Your task to perform on an android device: Do I have any events today? Image 0: 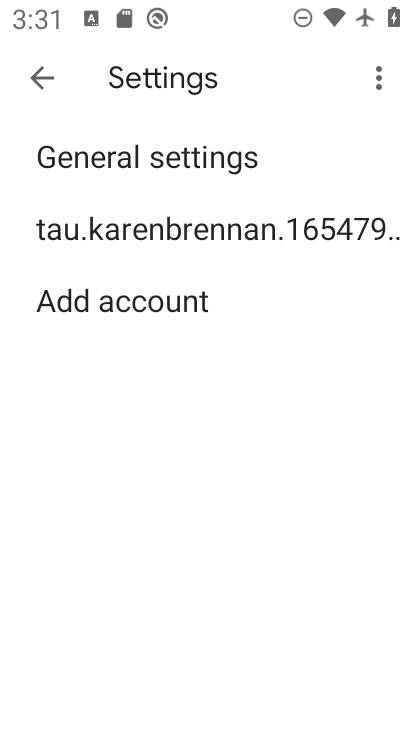
Step 0: press home button
Your task to perform on an android device: Do I have any events today? Image 1: 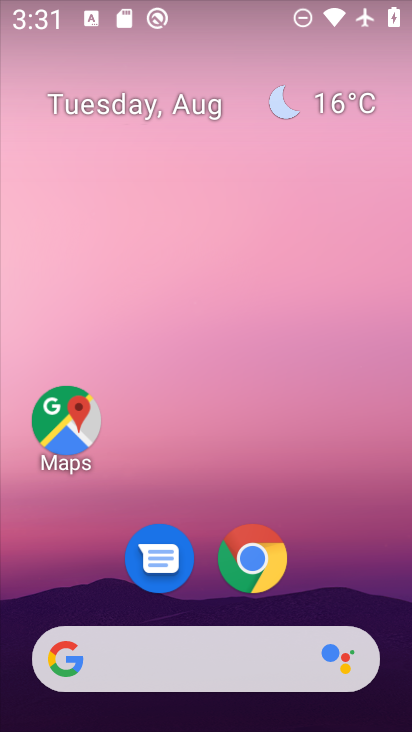
Step 1: click (227, 66)
Your task to perform on an android device: Do I have any events today? Image 2: 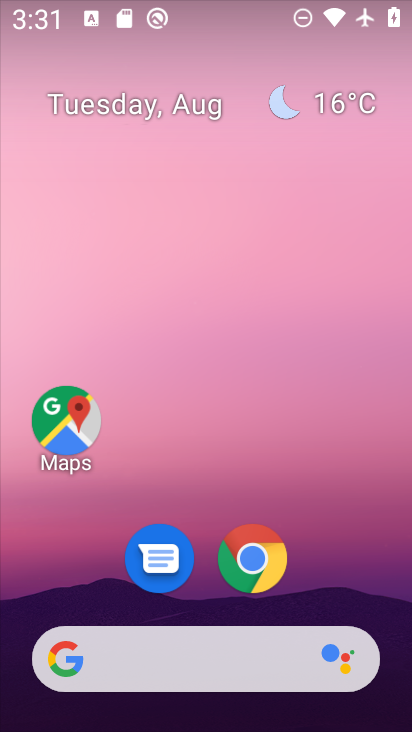
Step 2: drag from (194, 342) to (194, 149)
Your task to perform on an android device: Do I have any events today? Image 3: 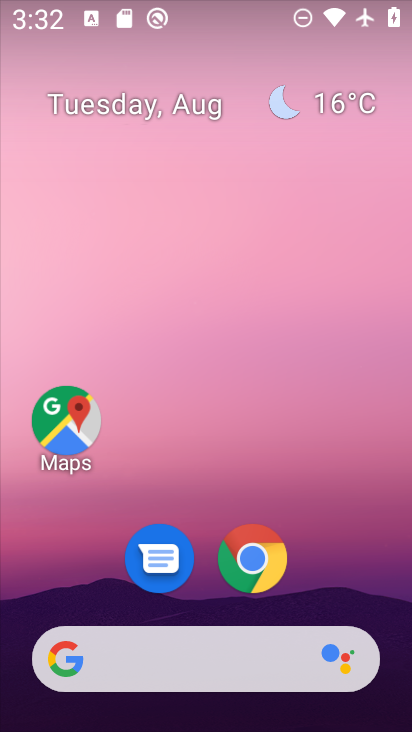
Step 3: drag from (191, 396) to (201, 108)
Your task to perform on an android device: Do I have any events today? Image 4: 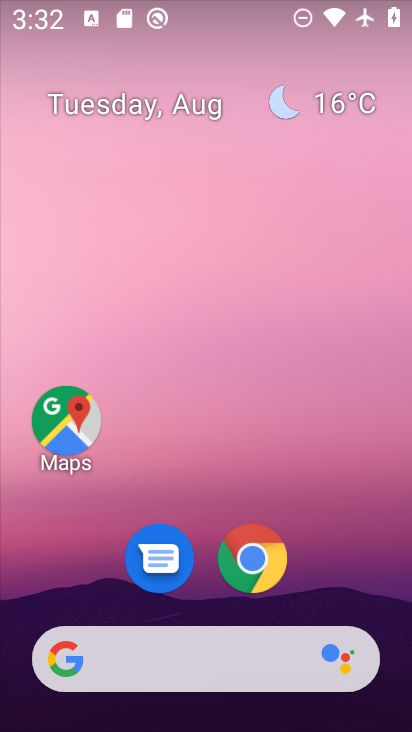
Step 4: drag from (203, 502) to (231, 122)
Your task to perform on an android device: Do I have any events today? Image 5: 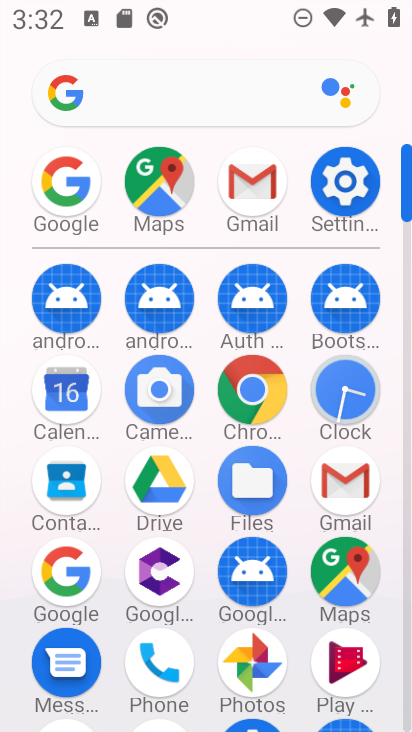
Step 5: click (79, 384)
Your task to perform on an android device: Do I have any events today? Image 6: 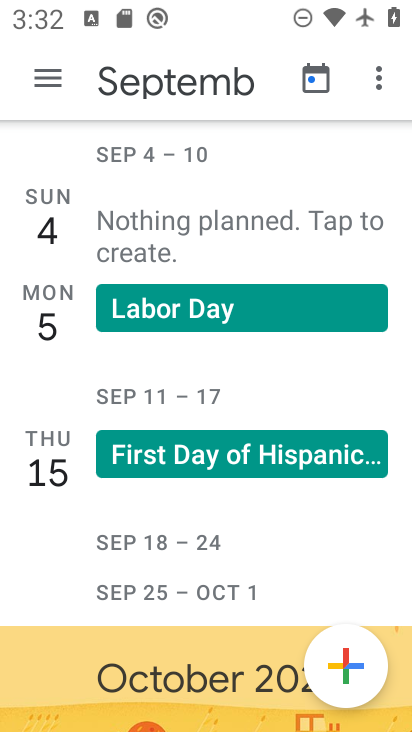
Step 6: click (151, 86)
Your task to perform on an android device: Do I have any events today? Image 7: 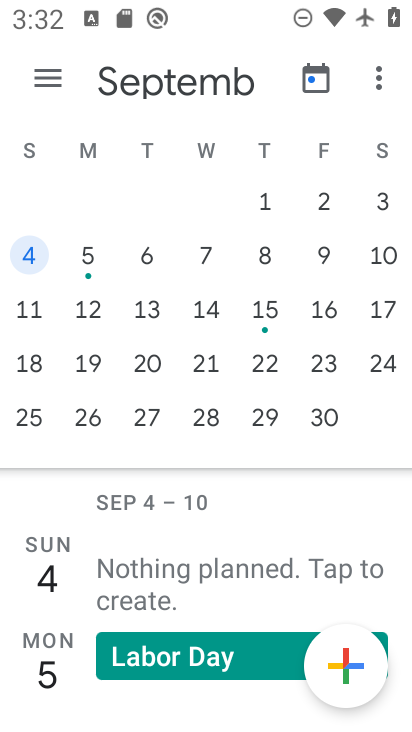
Step 7: drag from (57, 217) to (411, 186)
Your task to perform on an android device: Do I have any events today? Image 8: 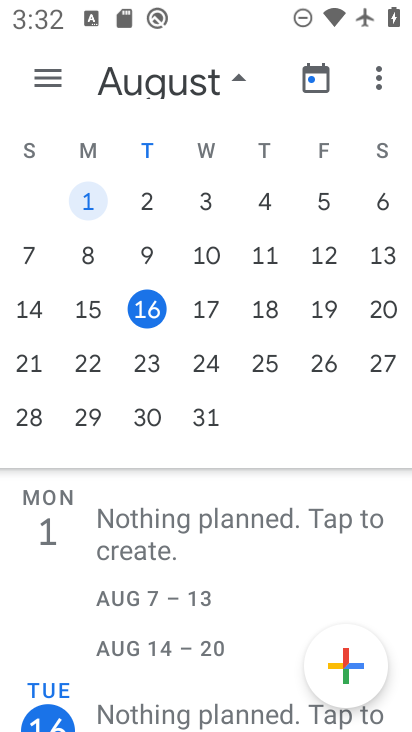
Step 8: click (148, 315)
Your task to perform on an android device: Do I have any events today? Image 9: 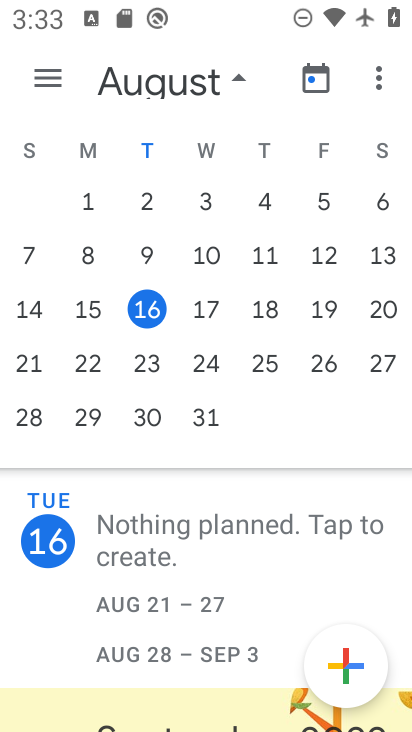
Step 9: task complete